Your task to perform on an android device: Open Yahoo.com Image 0: 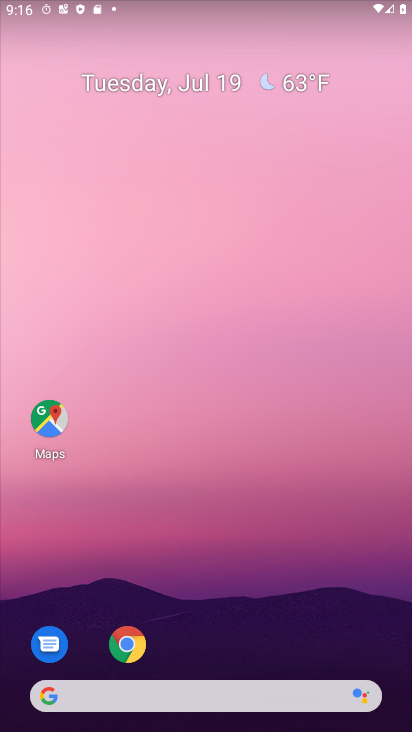
Step 0: drag from (287, 691) to (234, 300)
Your task to perform on an android device: Open Yahoo.com Image 1: 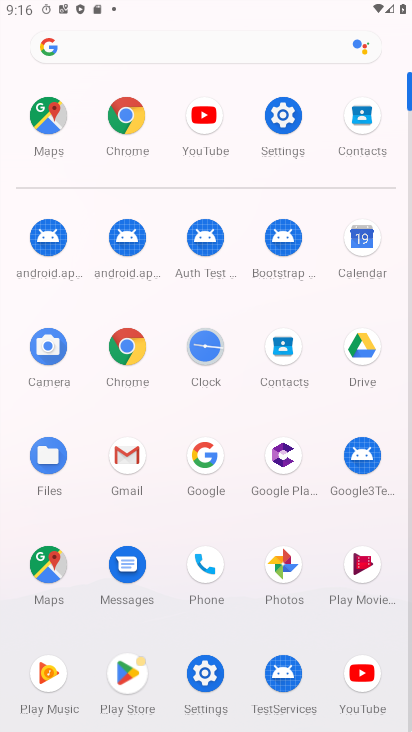
Step 1: click (128, 117)
Your task to perform on an android device: Open Yahoo.com Image 2: 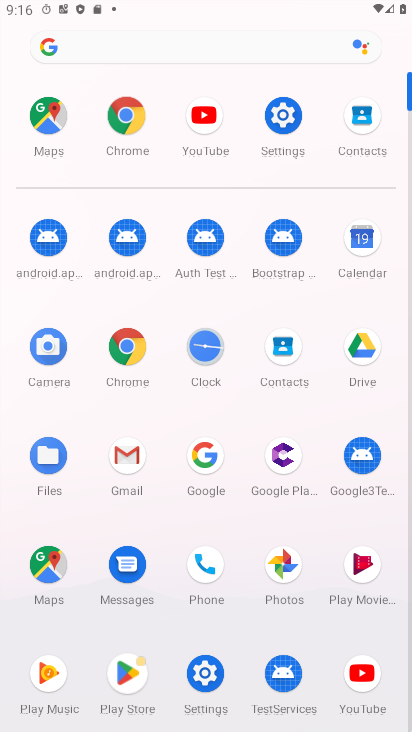
Step 2: click (130, 119)
Your task to perform on an android device: Open Yahoo.com Image 3: 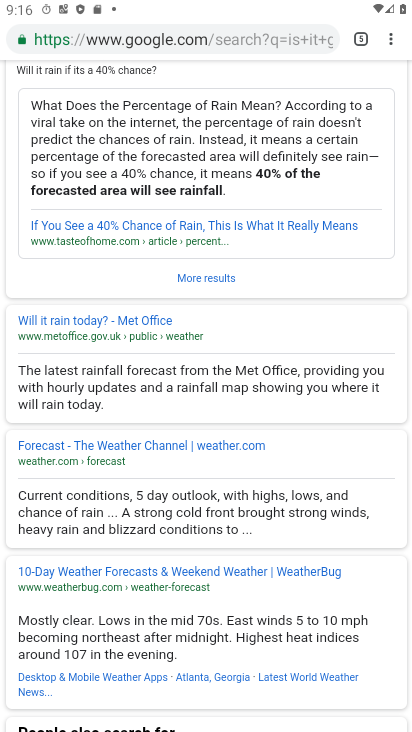
Step 3: drag from (392, 43) to (256, 83)
Your task to perform on an android device: Open Yahoo.com Image 4: 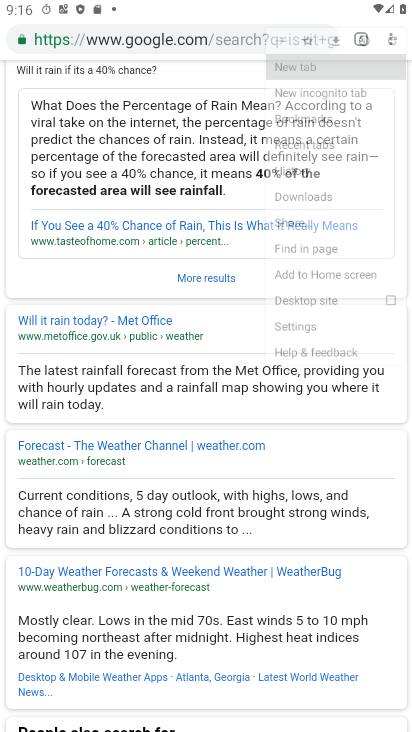
Step 4: click (256, 83)
Your task to perform on an android device: Open Yahoo.com Image 5: 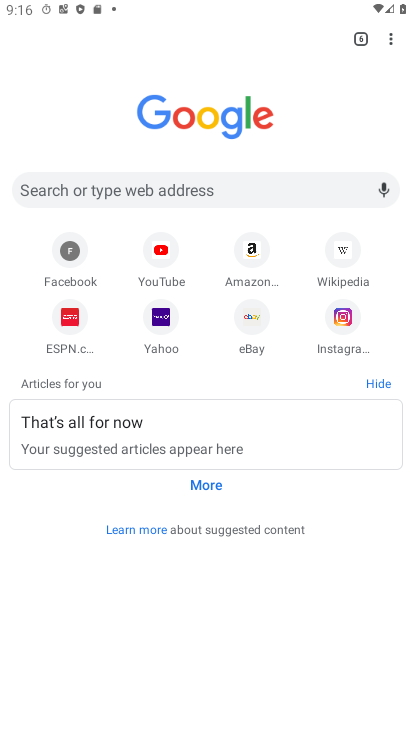
Step 5: click (155, 315)
Your task to perform on an android device: Open Yahoo.com Image 6: 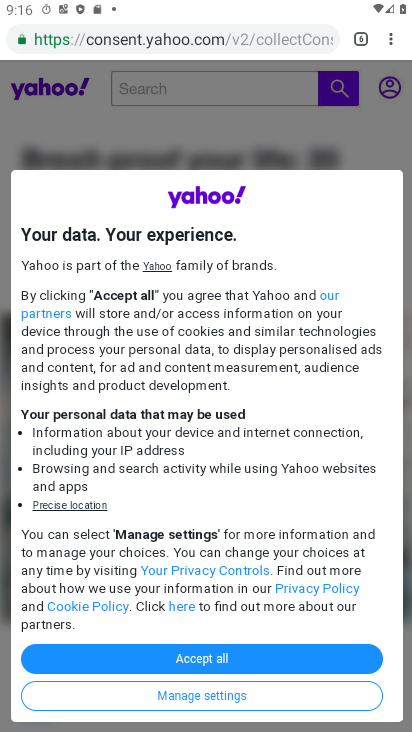
Step 6: task complete